Your task to perform on an android device: Go to internet settings Image 0: 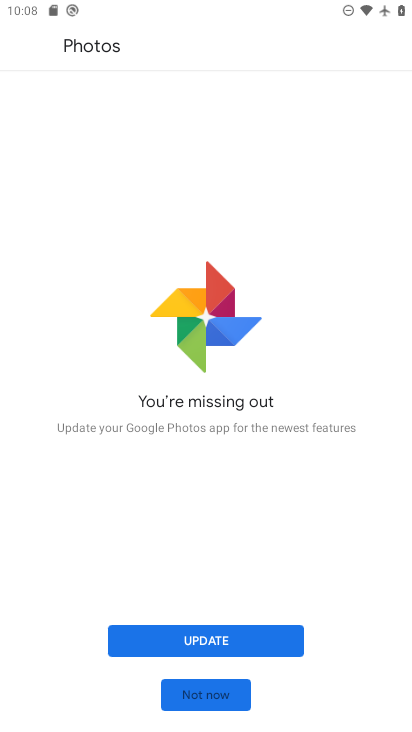
Step 0: press home button
Your task to perform on an android device: Go to internet settings Image 1: 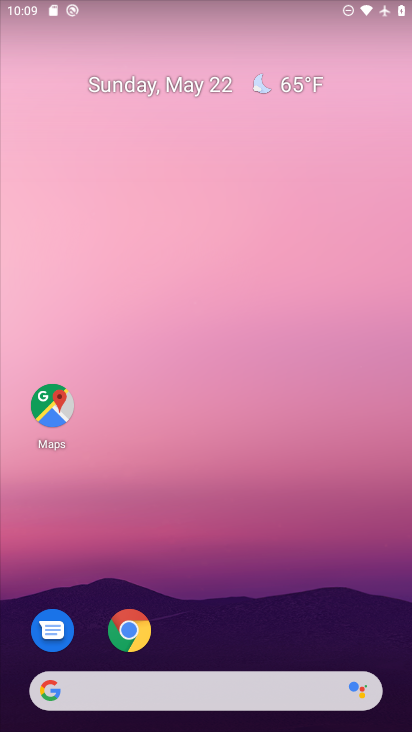
Step 1: drag from (226, 687) to (345, 224)
Your task to perform on an android device: Go to internet settings Image 2: 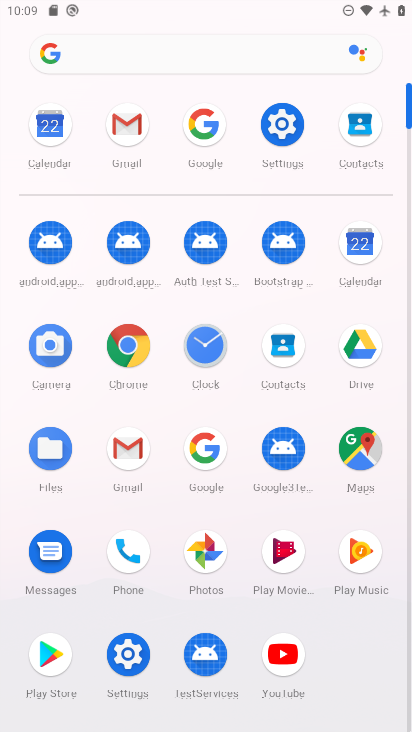
Step 2: click (295, 136)
Your task to perform on an android device: Go to internet settings Image 3: 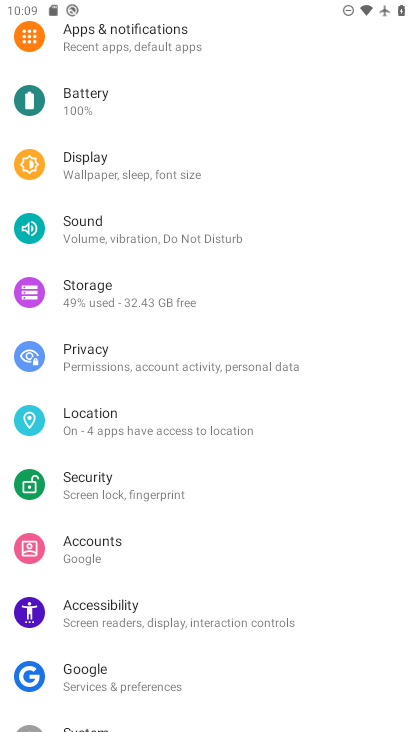
Step 3: drag from (239, 369) to (245, 492)
Your task to perform on an android device: Go to internet settings Image 4: 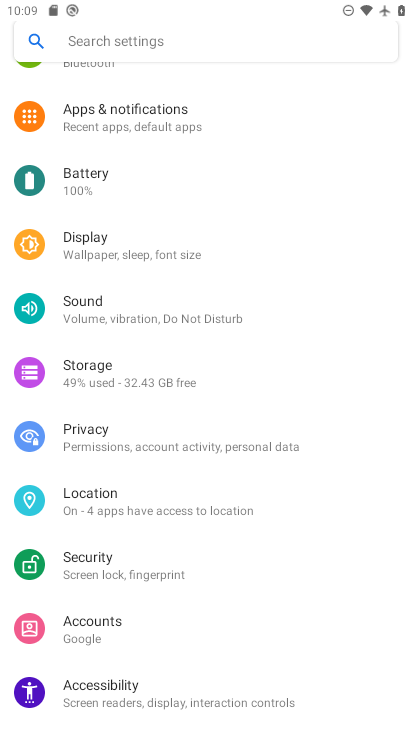
Step 4: drag from (300, 150) to (296, 567)
Your task to perform on an android device: Go to internet settings Image 5: 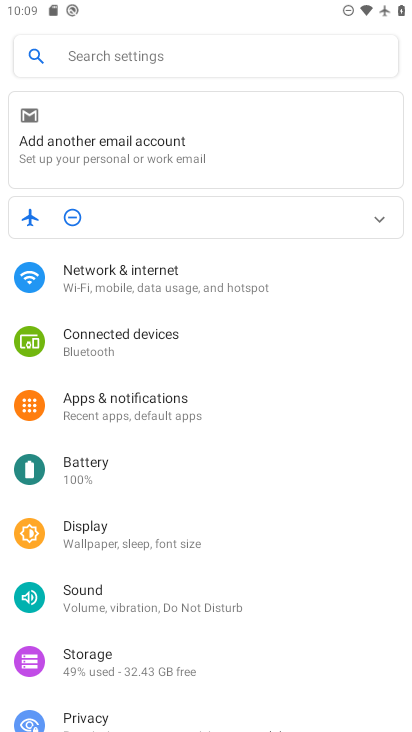
Step 5: click (183, 259)
Your task to perform on an android device: Go to internet settings Image 6: 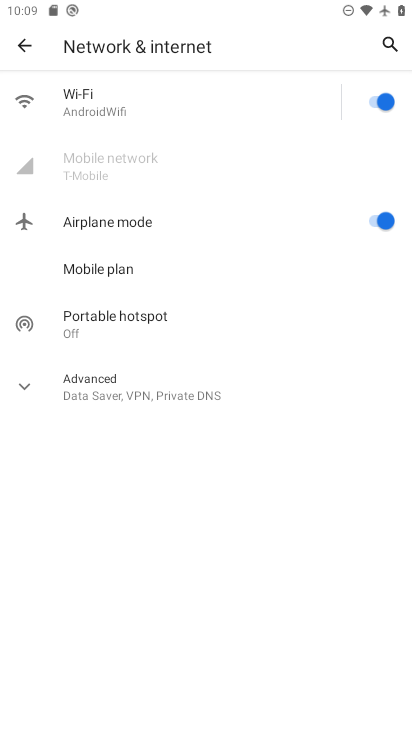
Step 6: task complete